Your task to perform on an android device: turn on javascript in the chrome app Image 0: 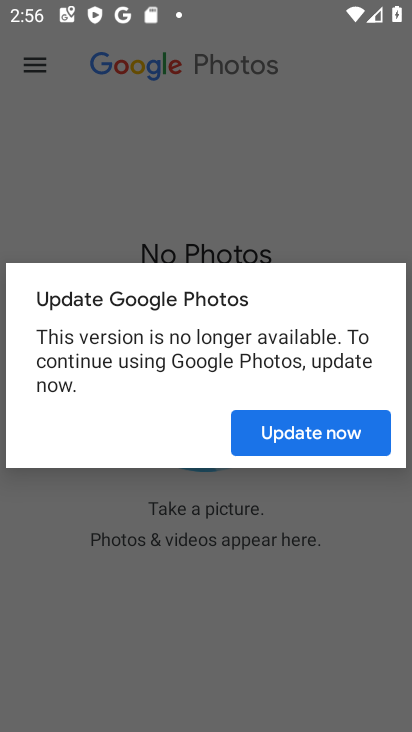
Step 0: press home button
Your task to perform on an android device: turn on javascript in the chrome app Image 1: 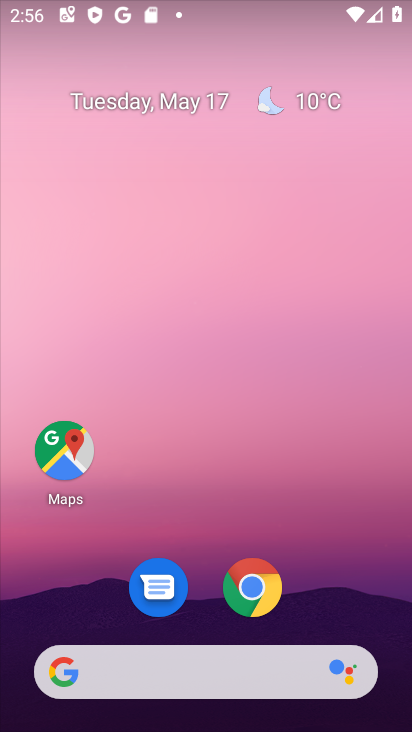
Step 1: click (257, 574)
Your task to perform on an android device: turn on javascript in the chrome app Image 2: 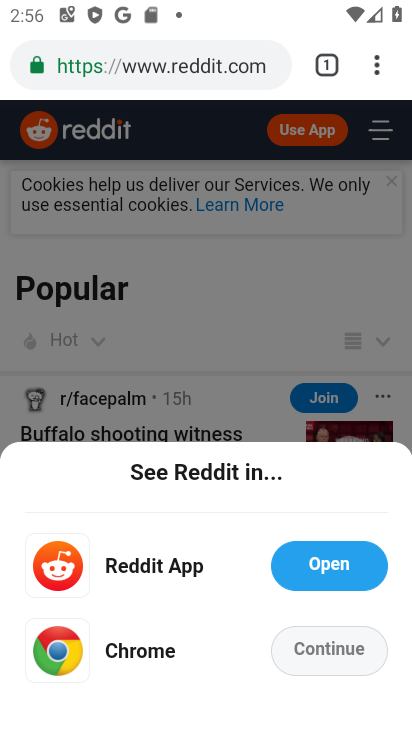
Step 2: drag from (377, 66) to (131, 621)
Your task to perform on an android device: turn on javascript in the chrome app Image 3: 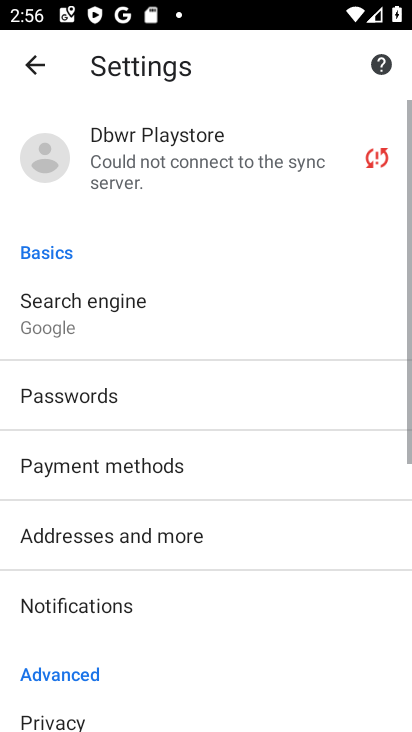
Step 3: drag from (196, 580) to (206, 222)
Your task to perform on an android device: turn on javascript in the chrome app Image 4: 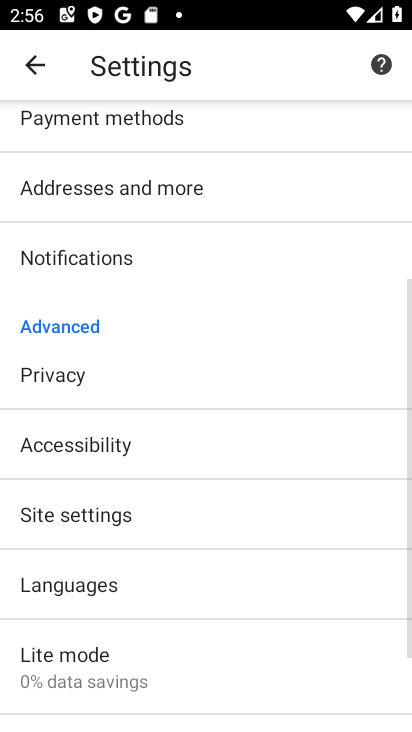
Step 4: click (118, 516)
Your task to perform on an android device: turn on javascript in the chrome app Image 5: 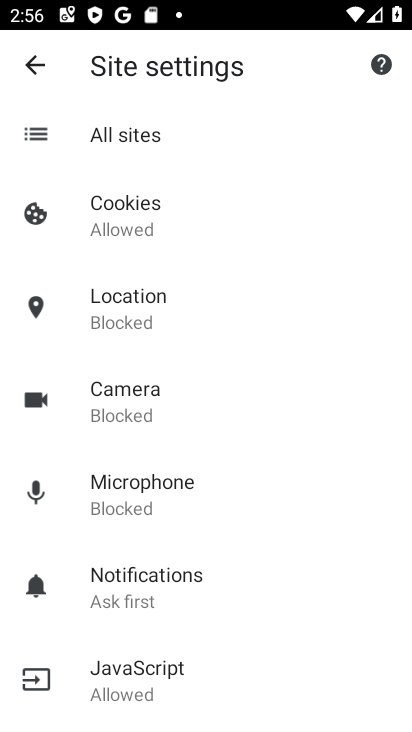
Step 5: drag from (185, 583) to (201, 229)
Your task to perform on an android device: turn on javascript in the chrome app Image 6: 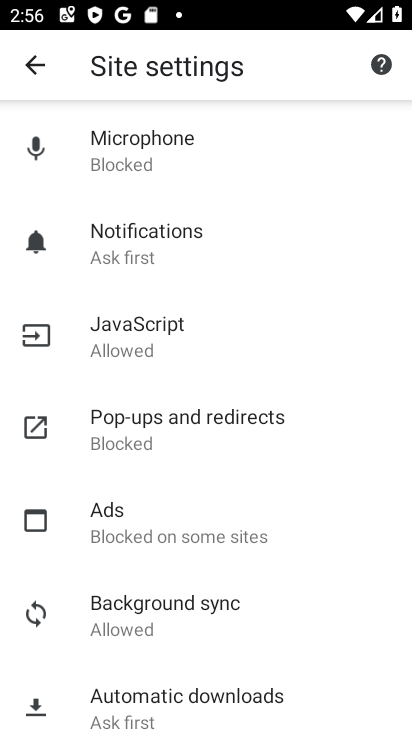
Step 6: click (154, 327)
Your task to perform on an android device: turn on javascript in the chrome app Image 7: 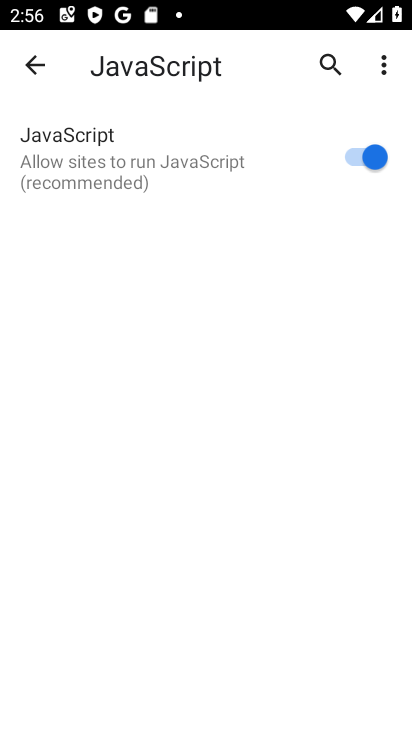
Step 7: task complete